Your task to perform on an android device: change the clock display to show seconds Image 0: 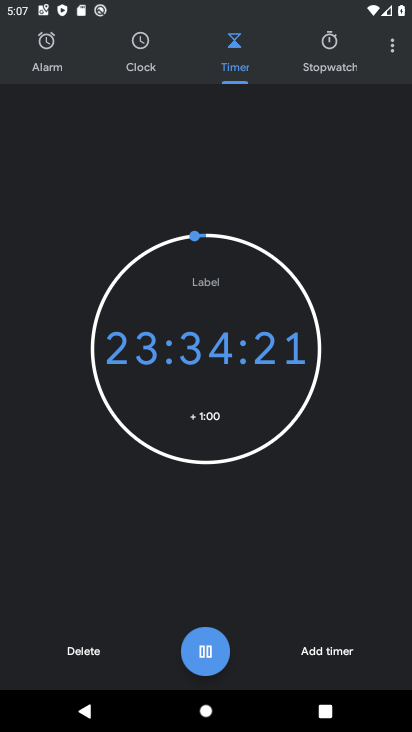
Step 0: click (397, 40)
Your task to perform on an android device: change the clock display to show seconds Image 1: 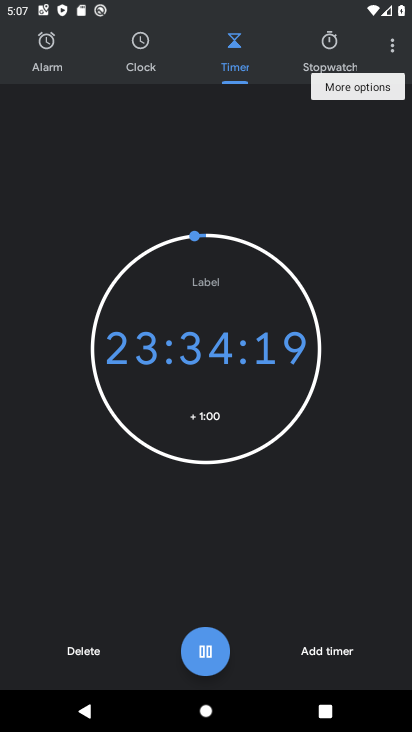
Step 1: click (392, 46)
Your task to perform on an android device: change the clock display to show seconds Image 2: 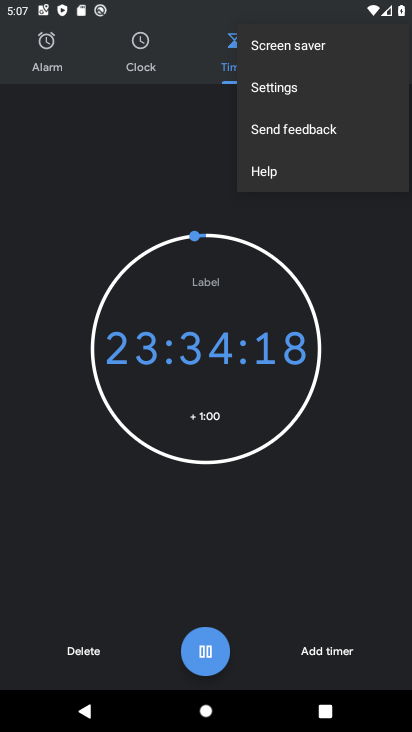
Step 2: click (274, 81)
Your task to perform on an android device: change the clock display to show seconds Image 3: 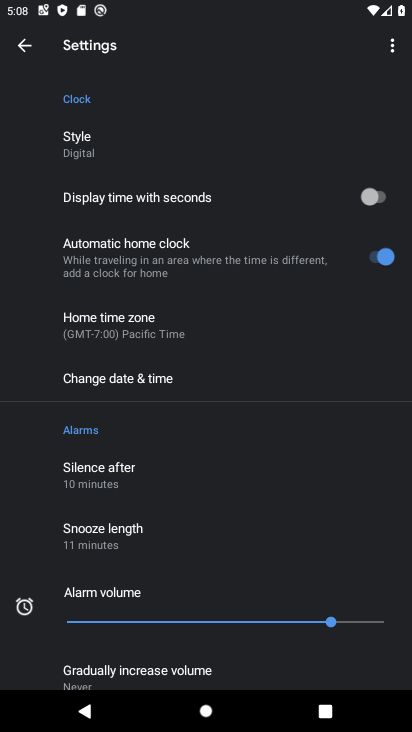
Step 3: click (365, 195)
Your task to perform on an android device: change the clock display to show seconds Image 4: 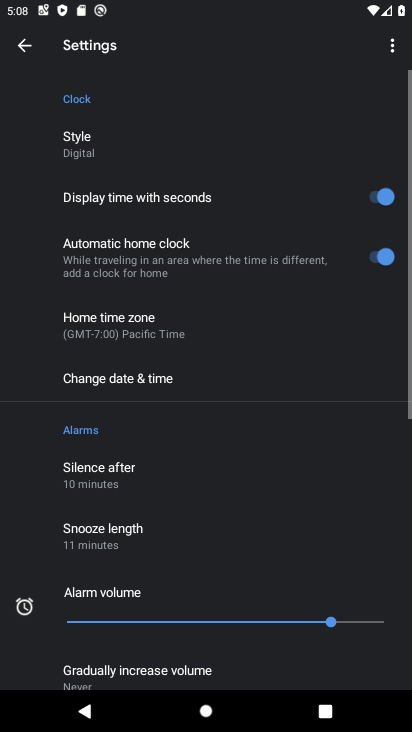
Step 4: task complete